Your task to perform on an android device: set the stopwatch Image 0: 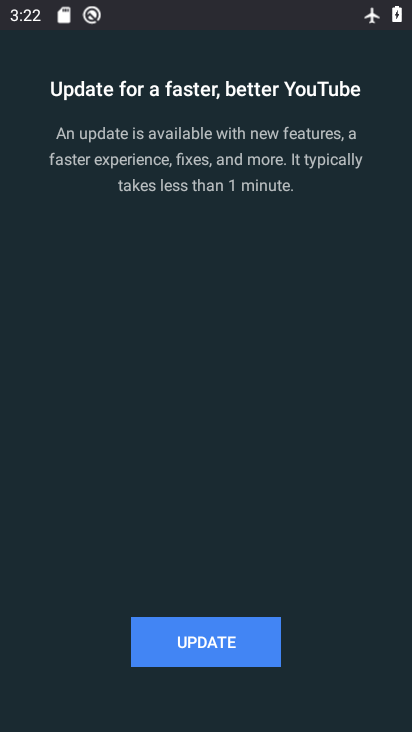
Step 0: press back button
Your task to perform on an android device: set the stopwatch Image 1: 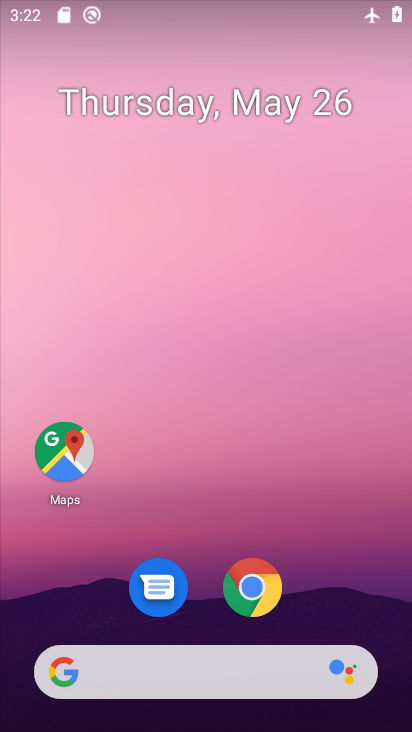
Step 1: drag from (344, 598) to (196, 22)
Your task to perform on an android device: set the stopwatch Image 2: 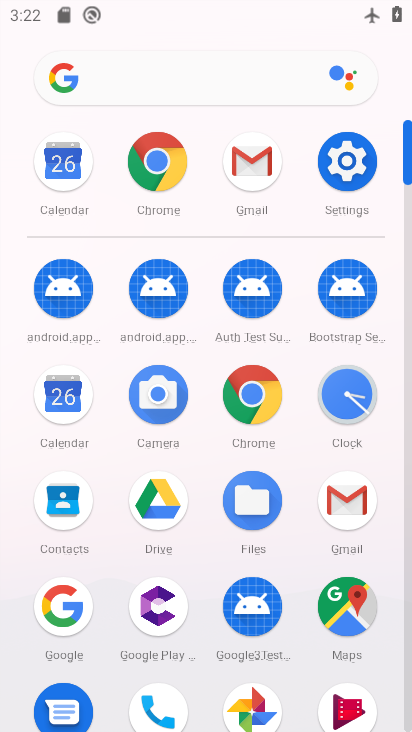
Step 2: click (346, 379)
Your task to perform on an android device: set the stopwatch Image 3: 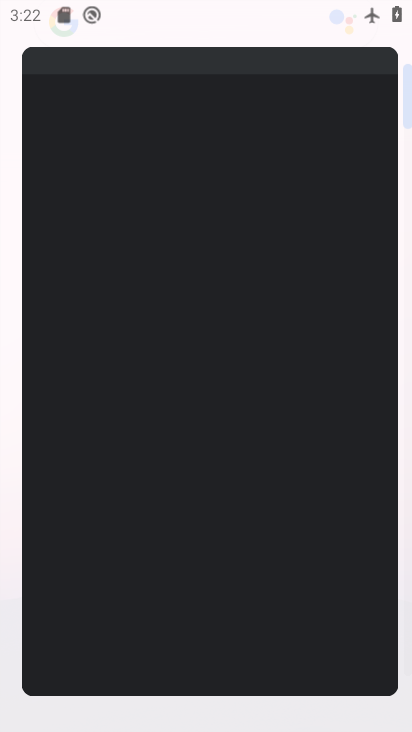
Step 3: click (344, 393)
Your task to perform on an android device: set the stopwatch Image 4: 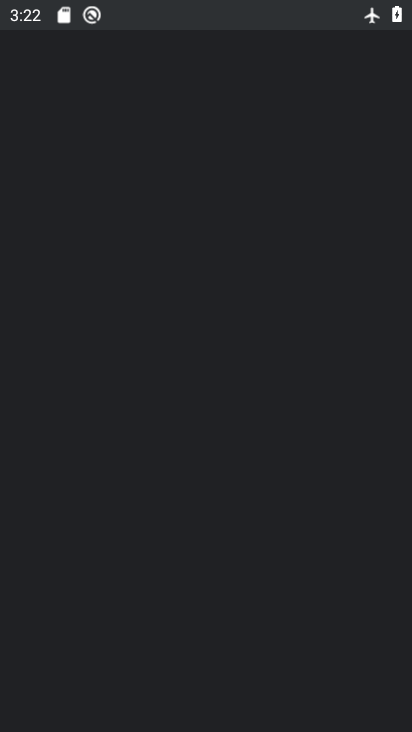
Step 4: click (344, 421)
Your task to perform on an android device: set the stopwatch Image 5: 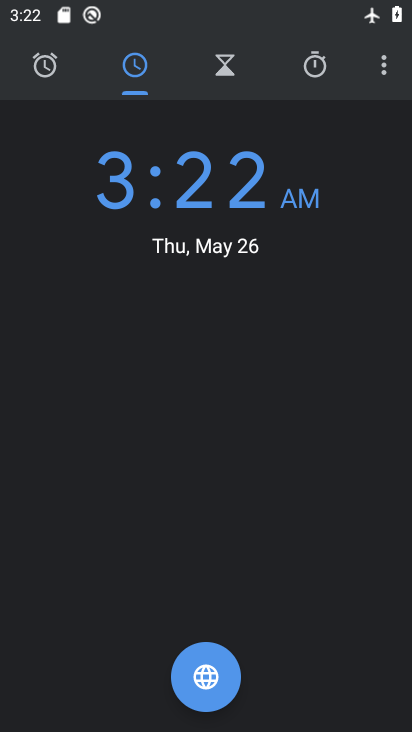
Step 5: press back button
Your task to perform on an android device: set the stopwatch Image 6: 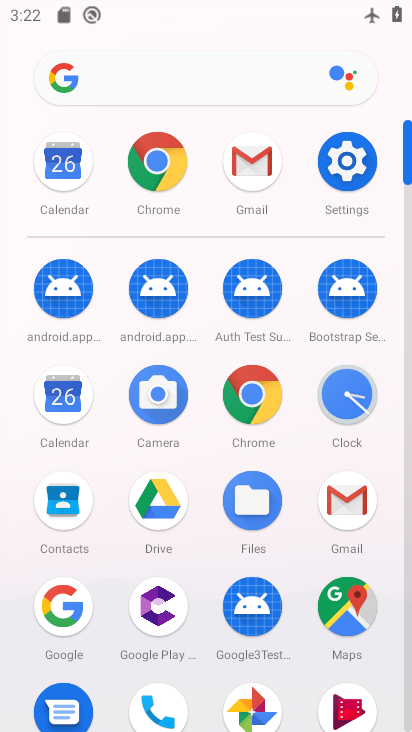
Step 6: click (358, 416)
Your task to perform on an android device: set the stopwatch Image 7: 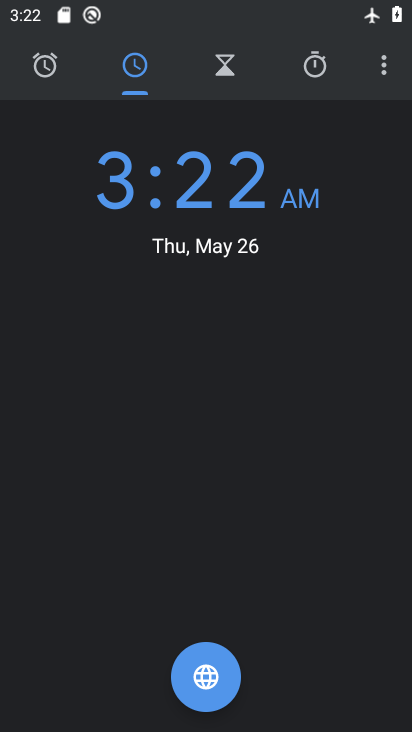
Step 7: click (321, 77)
Your task to perform on an android device: set the stopwatch Image 8: 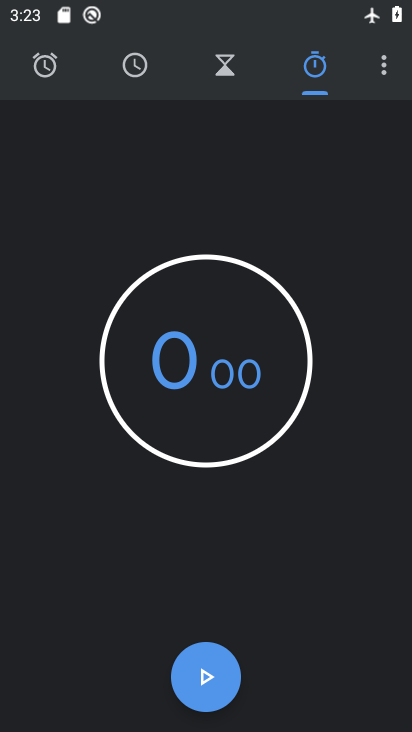
Step 8: click (206, 675)
Your task to perform on an android device: set the stopwatch Image 9: 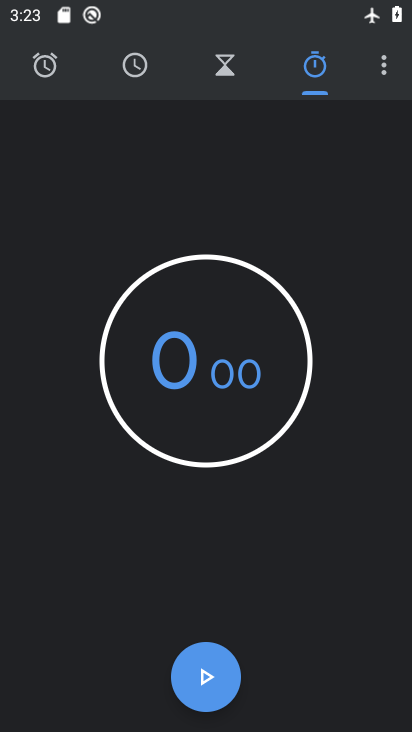
Step 9: click (204, 675)
Your task to perform on an android device: set the stopwatch Image 10: 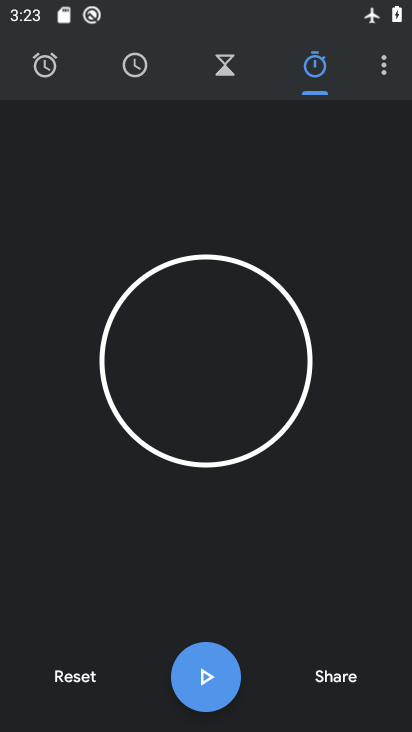
Step 10: click (198, 673)
Your task to perform on an android device: set the stopwatch Image 11: 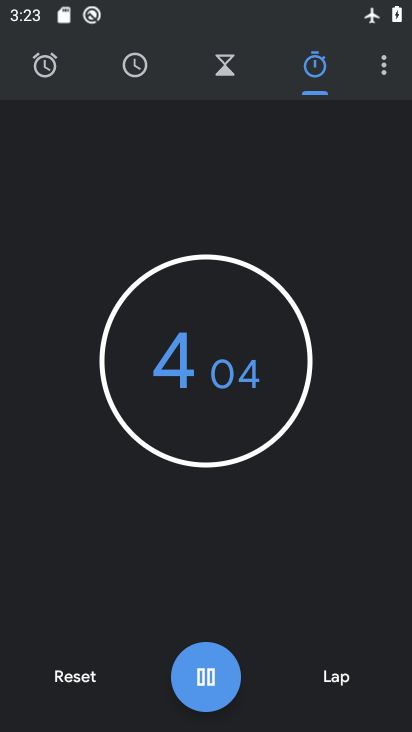
Step 11: click (207, 683)
Your task to perform on an android device: set the stopwatch Image 12: 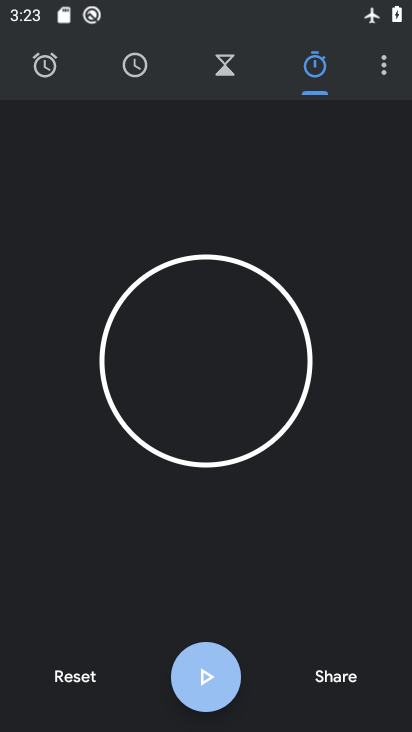
Step 12: click (208, 683)
Your task to perform on an android device: set the stopwatch Image 13: 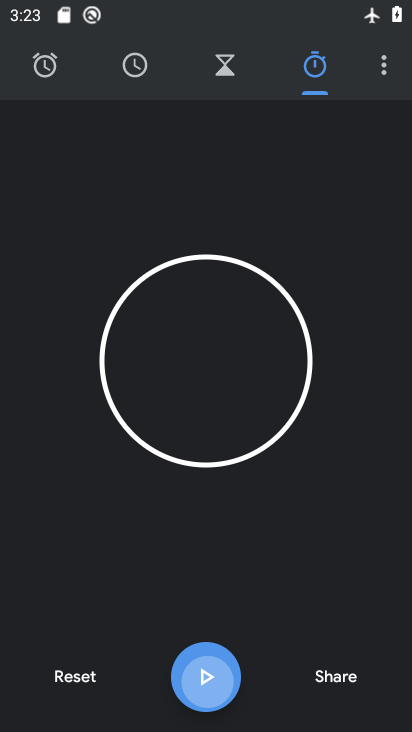
Step 13: click (209, 683)
Your task to perform on an android device: set the stopwatch Image 14: 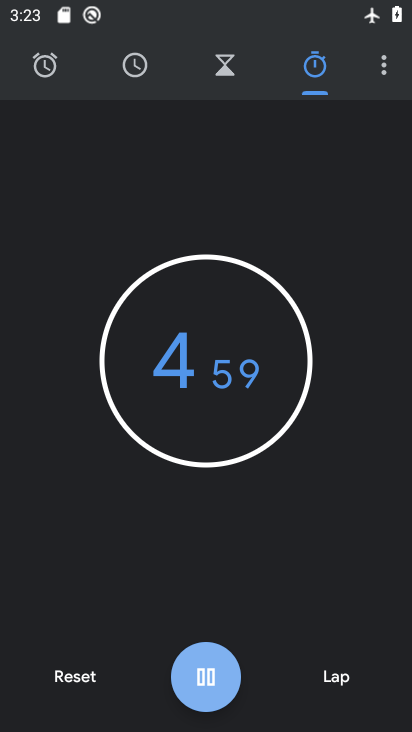
Step 14: click (209, 683)
Your task to perform on an android device: set the stopwatch Image 15: 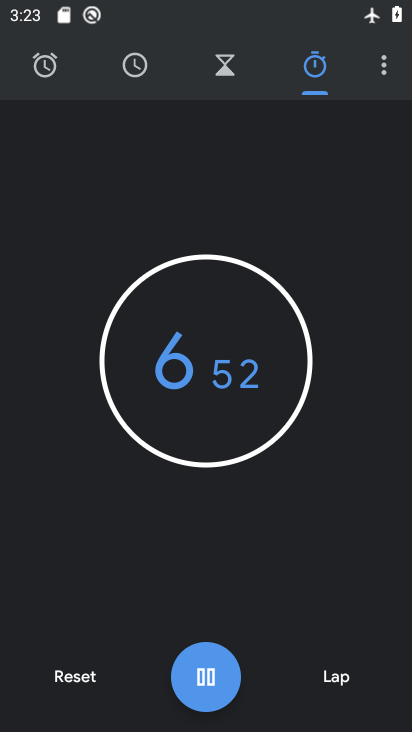
Step 15: click (200, 681)
Your task to perform on an android device: set the stopwatch Image 16: 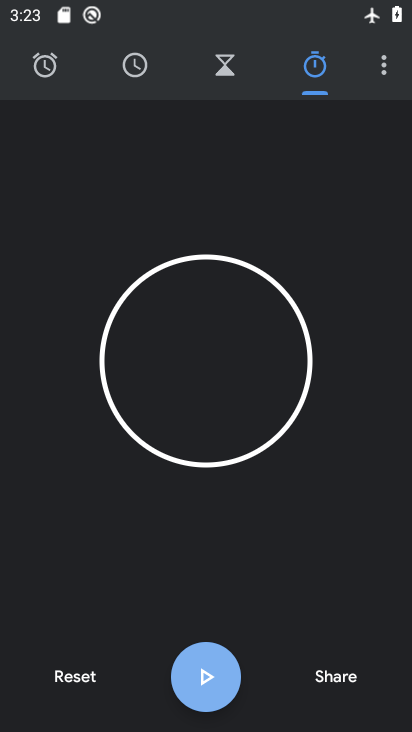
Step 16: click (219, 663)
Your task to perform on an android device: set the stopwatch Image 17: 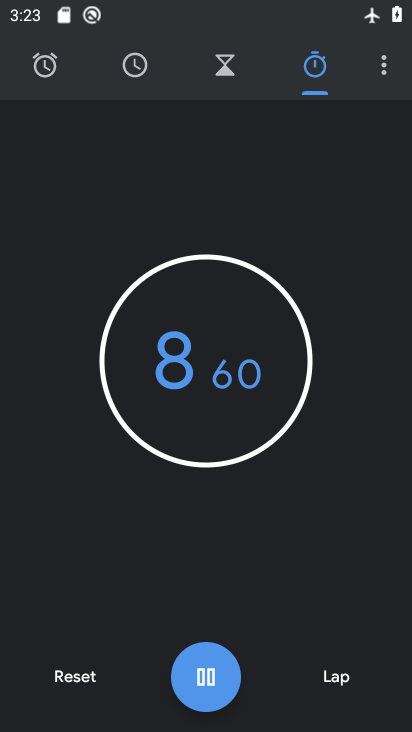
Step 17: click (211, 669)
Your task to perform on an android device: set the stopwatch Image 18: 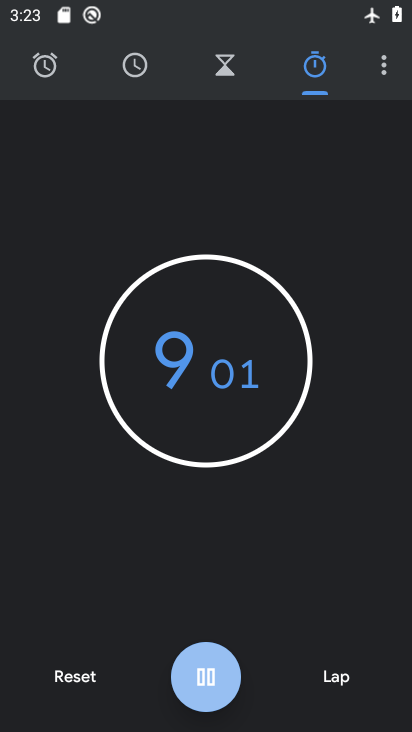
Step 18: click (211, 669)
Your task to perform on an android device: set the stopwatch Image 19: 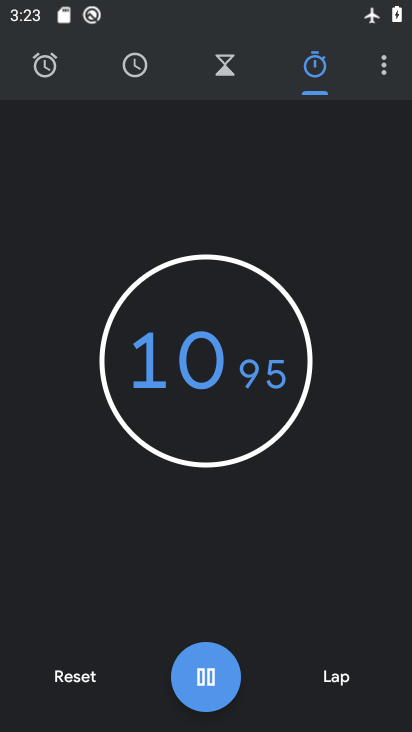
Step 19: click (202, 678)
Your task to perform on an android device: set the stopwatch Image 20: 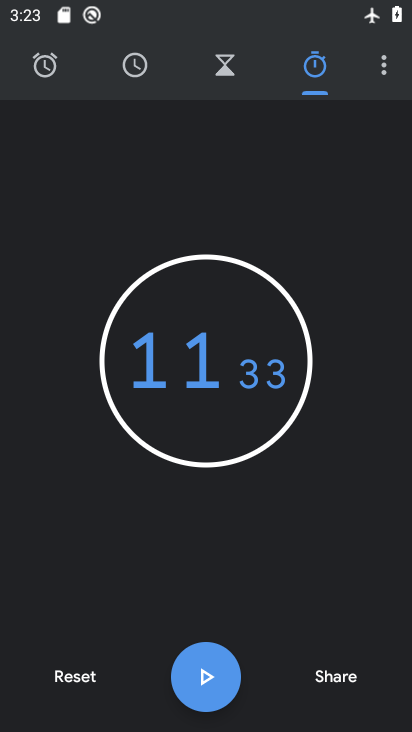
Step 20: task complete